Your task to perform on an android device: Open sound settings Image 0: 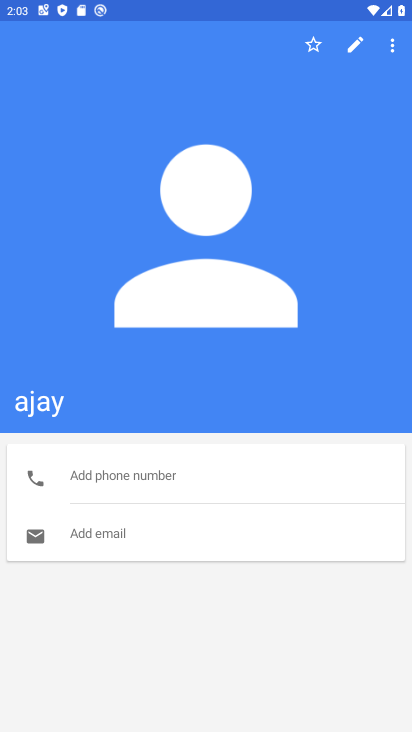
Step 0: press home button
Your task to perform on an android device: Open sound settings Image 1: 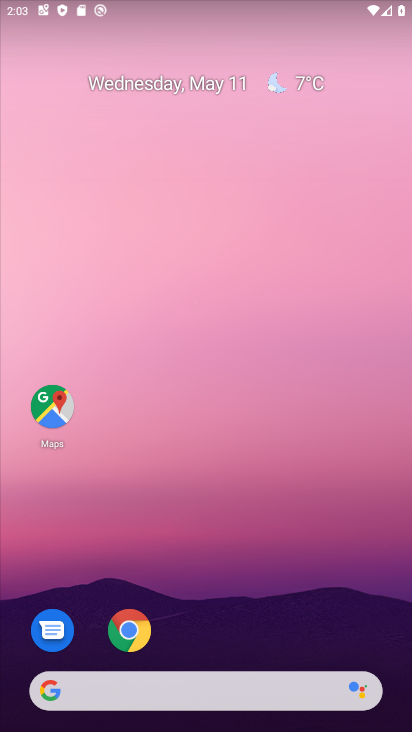
Step 1: drag from (394, 627) to (300, 63)
Your task to perform on an android device: Open sound settings Image 2: 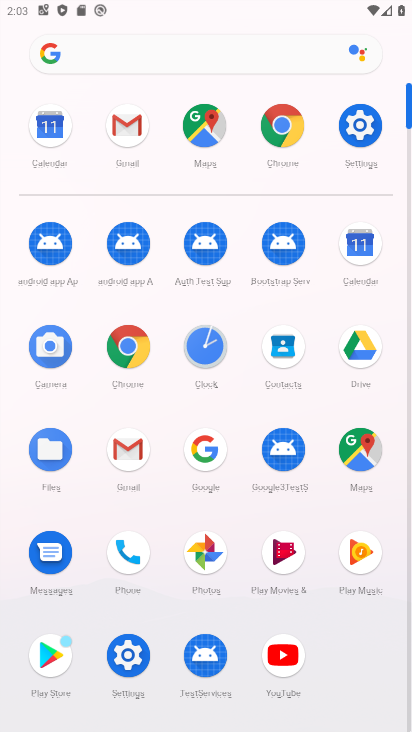
Step 2: click (139, 646)
Your task to perform on an android device: Open sound settings Image 3: 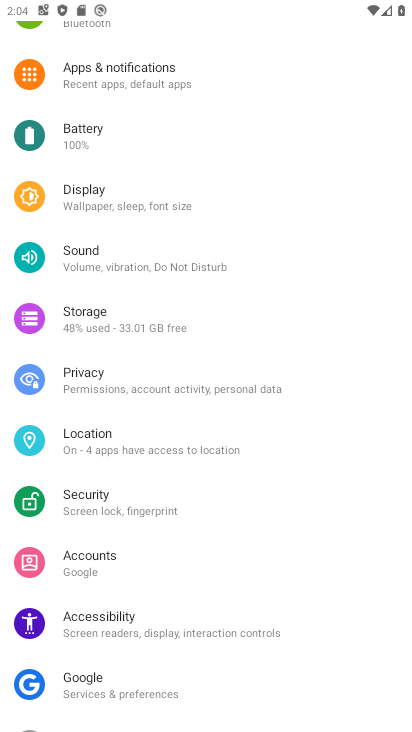
Step 3: click (160, 253)
Your task to perform on an android device: Open sound settings Image 4: 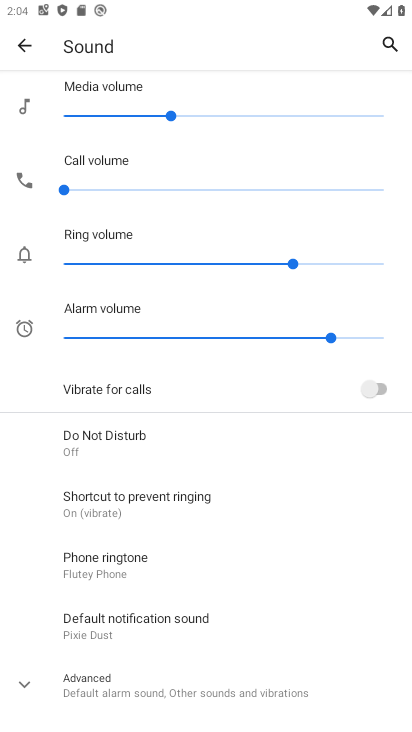
Step 4: task complete